Your task to perform on an android device: When is my next meeting? Image 0: 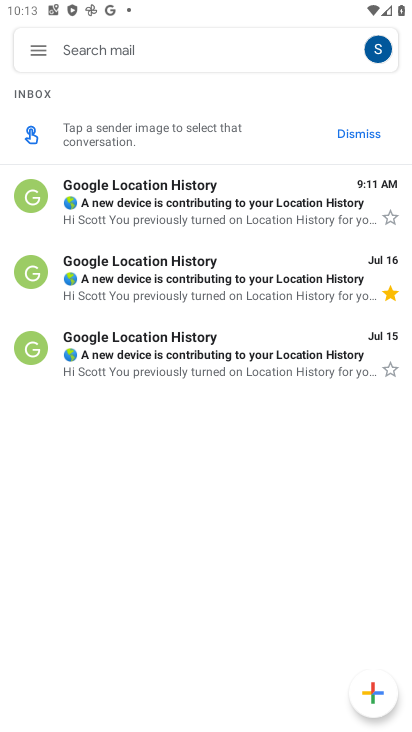
Step 0: press home button
Your task to perform on an android device: When is my next meeting? Image 1: 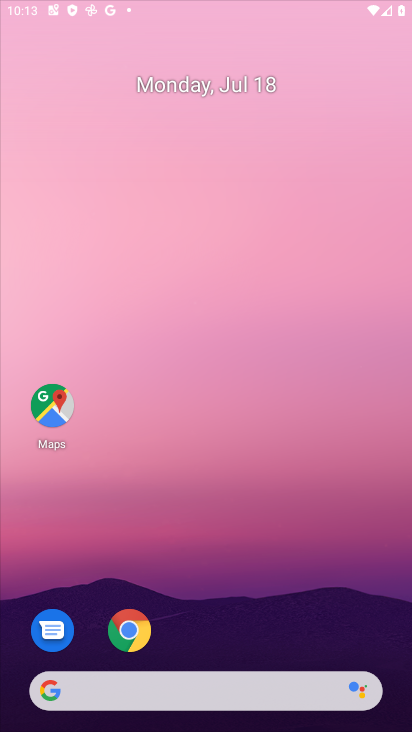
Step 1: drag from (355, 619) to (207, 52)
Your task to perform on an android device: When is my next meeting? Image 2: 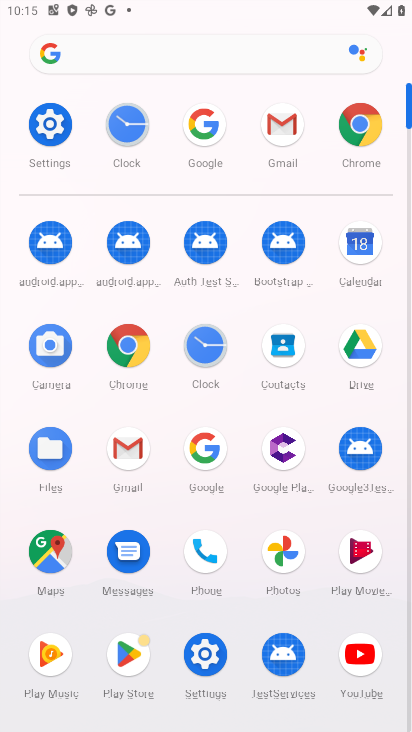
Step 2: click (369, 246)
Your task to perform on an android device: When is my next meeting? Image 3: 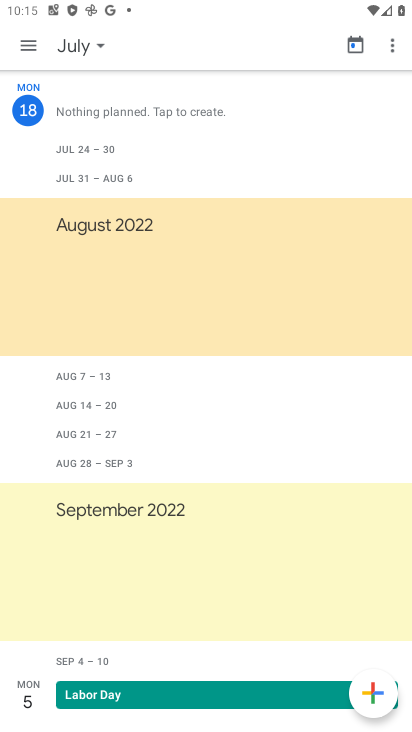
Step 3: task complete